Your task to perform on an android device: change text size in settings app Image 0: 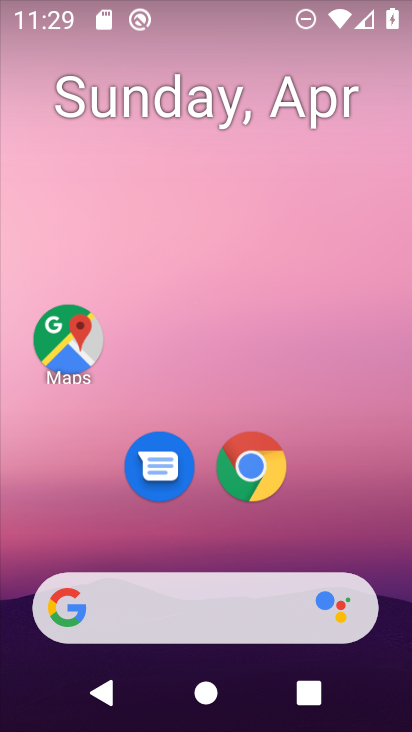
Step 0: drag from (368, 512) to (340, 73)
Your task to perform on an android device: change text size in settings app Image 1: 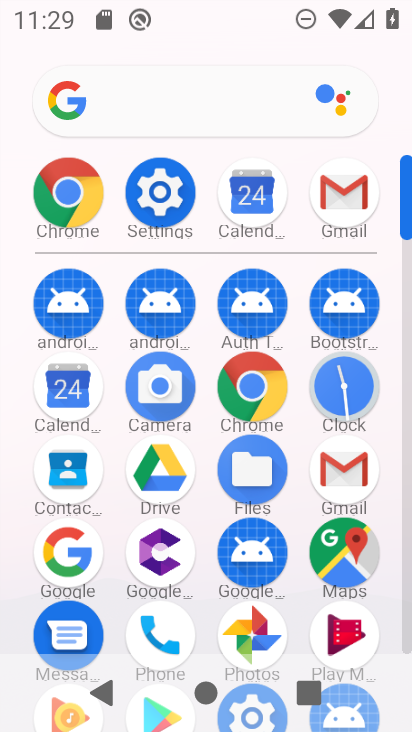
Step 1: click (177, 184)
Your task to perform on an android device: change text size in settings app Image 2: 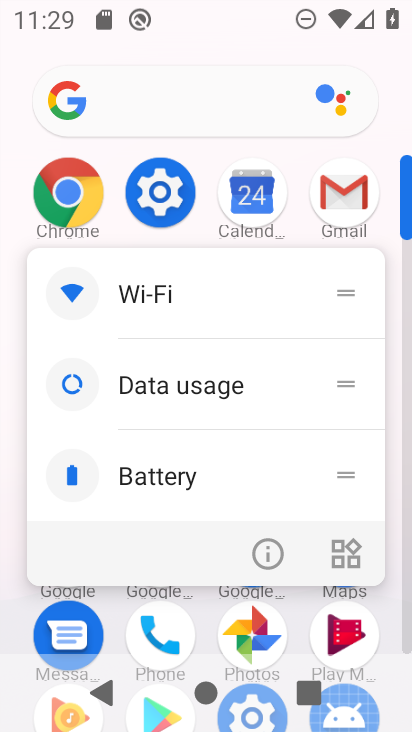
Step 2: click (166, 192)
Your task to perform on an android device: change text size in settings app Image 3: 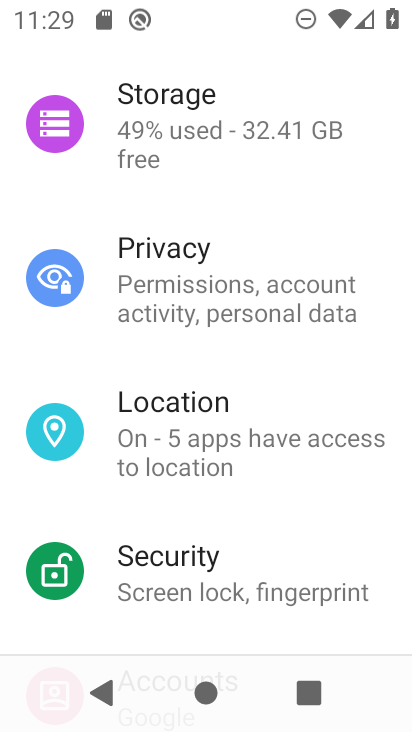
Step 3: drag from (379, 204) to (385, 364)
Your task to perform on an android device: change text size in settings app Image 4: 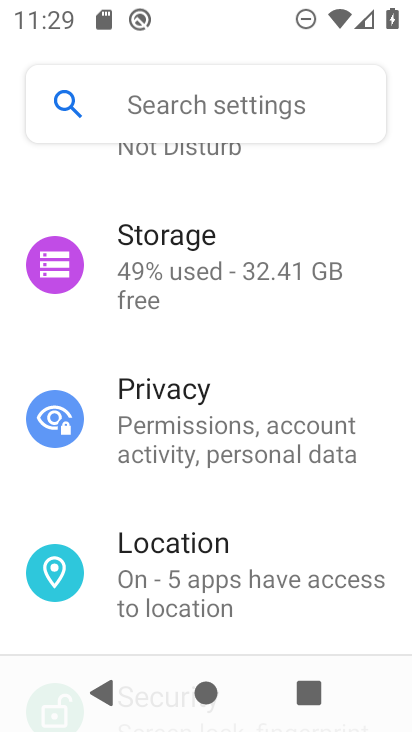
Step 4: drag from (384, 221) to (389, 375)
Your task to perform on an android device: change text size in settings app Image 5: 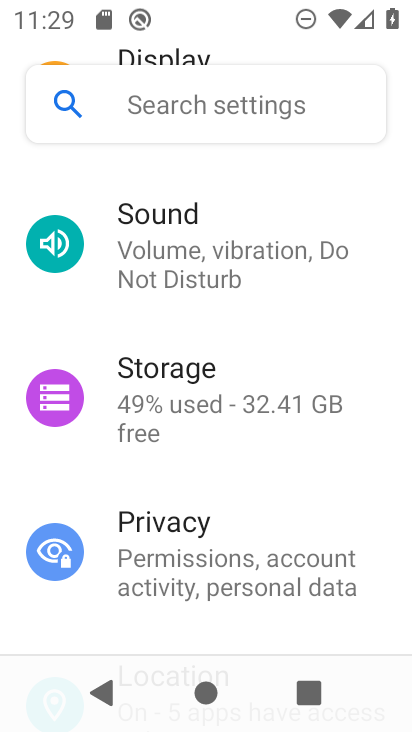
Step 5: drag from (372, 210) to (381, 350)
Your task to perform on an android device: change text size in settings app Image 6: 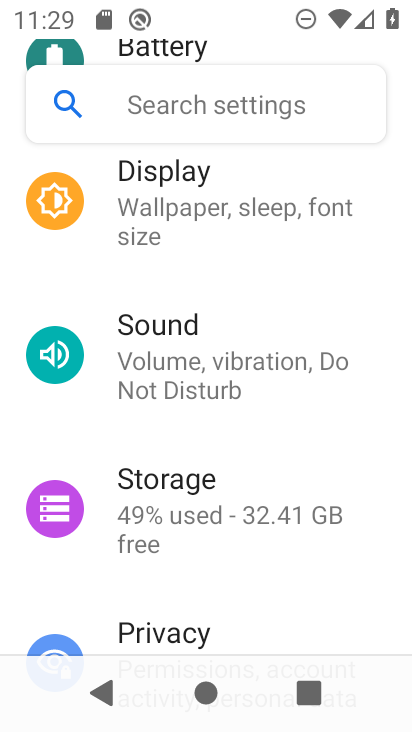
Step 6: drag from (381, 176) to (378, 371)
Your task to perform on an android device: change text size in settings app Image 7: 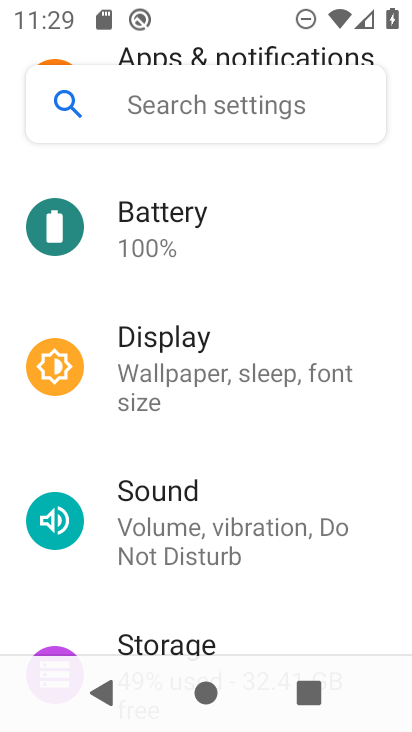
Step 7: drag from (371, 172) to (371, 371)
Your task to perform on an android device: change text size in settings app Image 8: 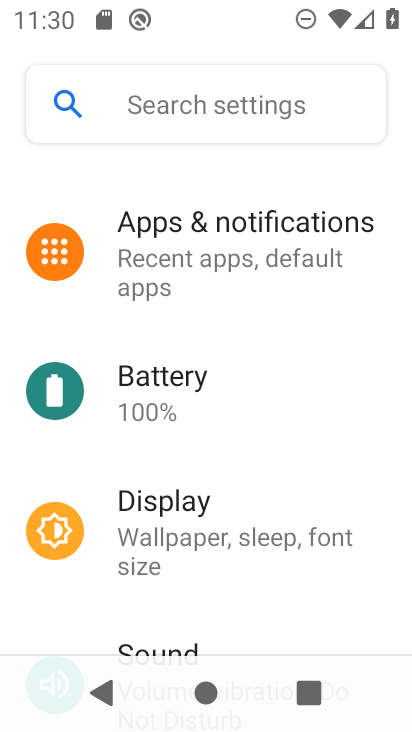
Step 8: click (301, 541)
Your task to perform on an android device: change text size in settings app Image 9: 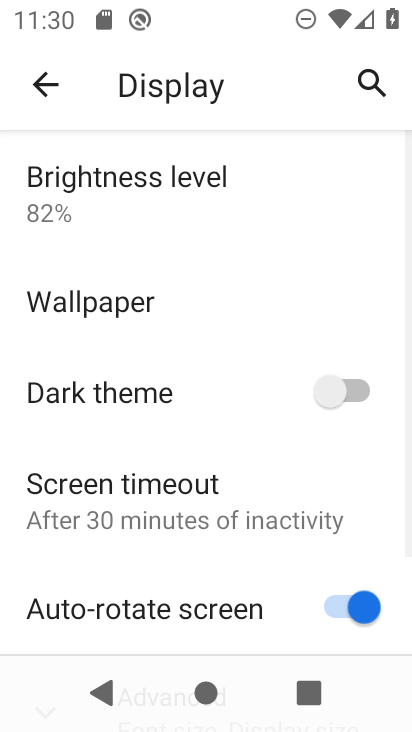
Step 9: drag from (286, 539) to (279, 271)
Your task to perform on an android device: change text size in settings app Image 10: 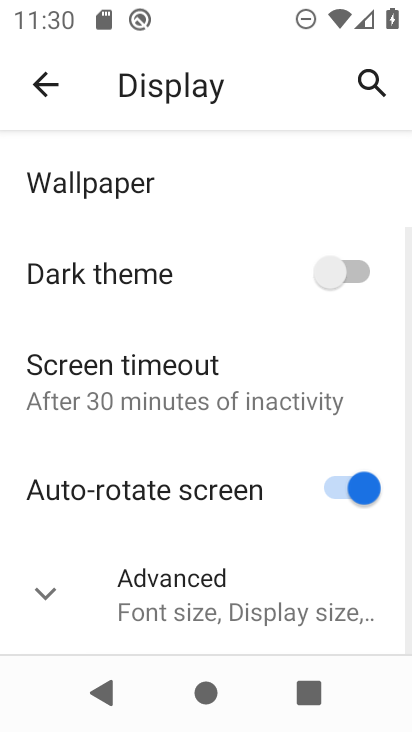
Step 10: click (222, 605)
Your task to perform on an android device: change text size in settings app Image 11: 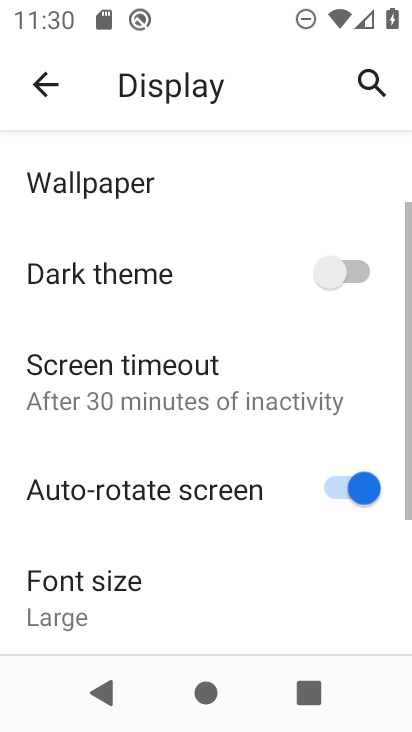
Step 11: drag from (257, 562) to (247, 316)
Your task to perform on an android device: change text size in settings app Image 12: 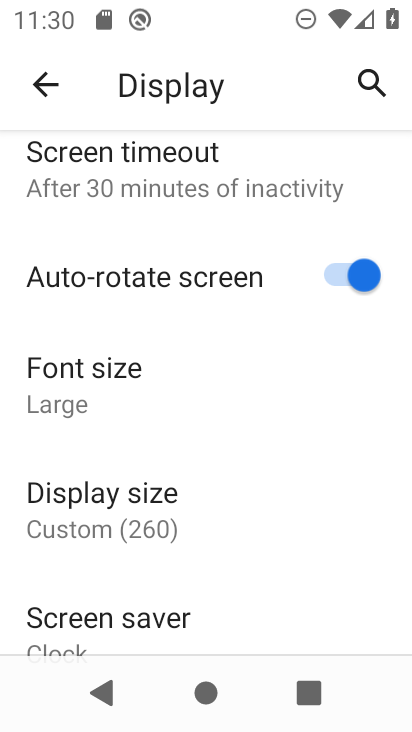
Step 12: click (104, 378)
Your task to perform on an android device: change text size in settings app Image 13: 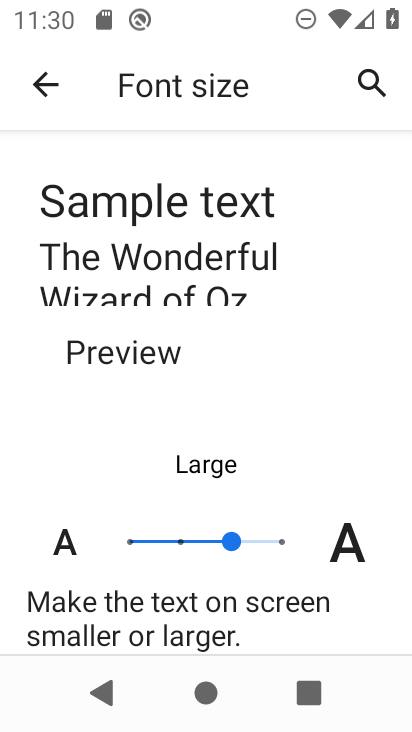
Step 13: click (186, 544)
Your task to perform on an android device: change text size in settings app Image 14: 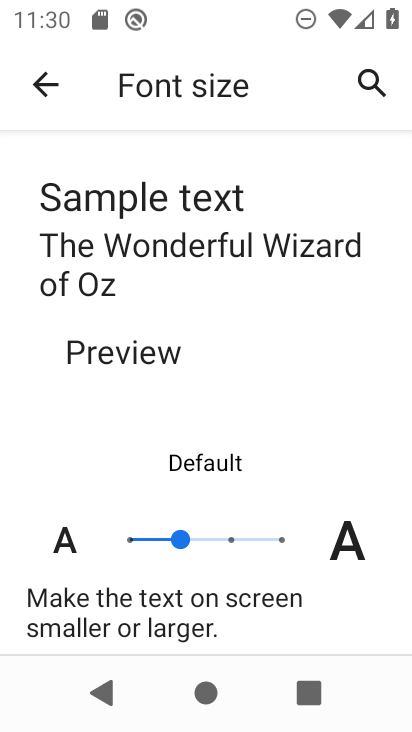
Step 14: task complete